Your task to perform on an android device: Search for the best rated running shoes on Nike.com Image 0: 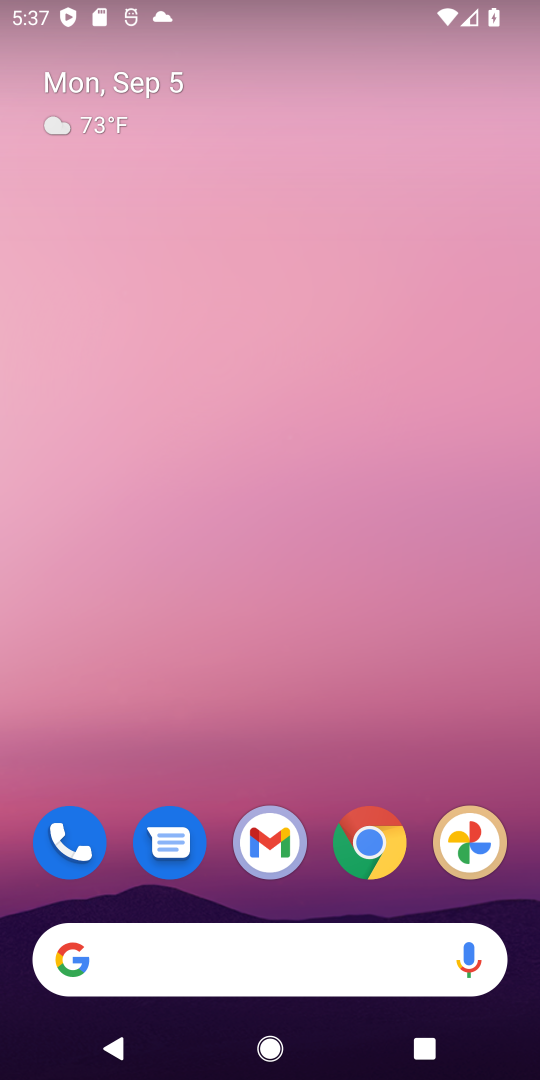
Step 0: click (375, 846)
Your task to perform on an android device: Search for the best rated running shoes on Nike.com Image 1: 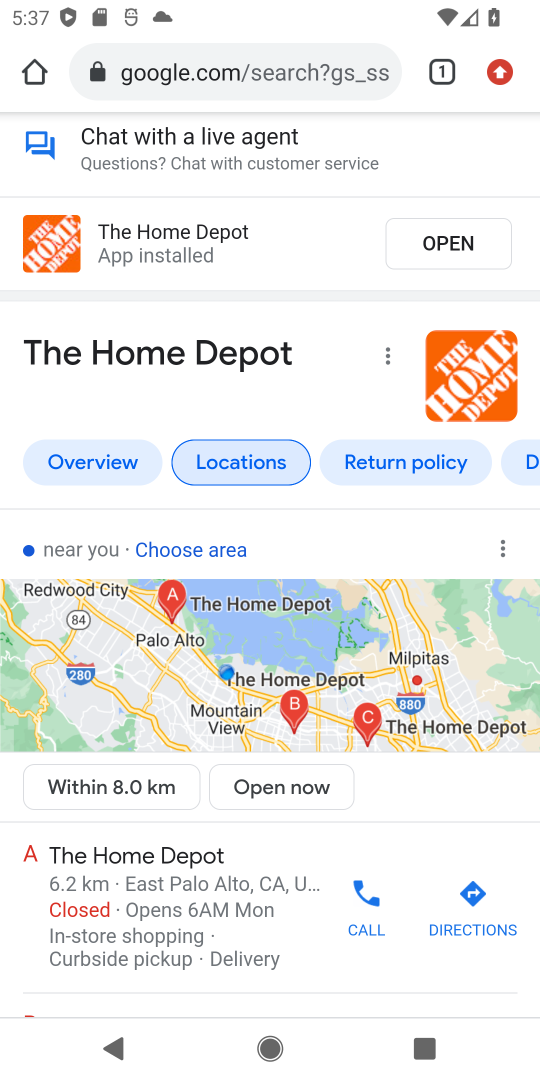
Step 1: click (322, 70)
Your task to perform on an android device: Search for the best rated running shoes on Nike.com Image 2: 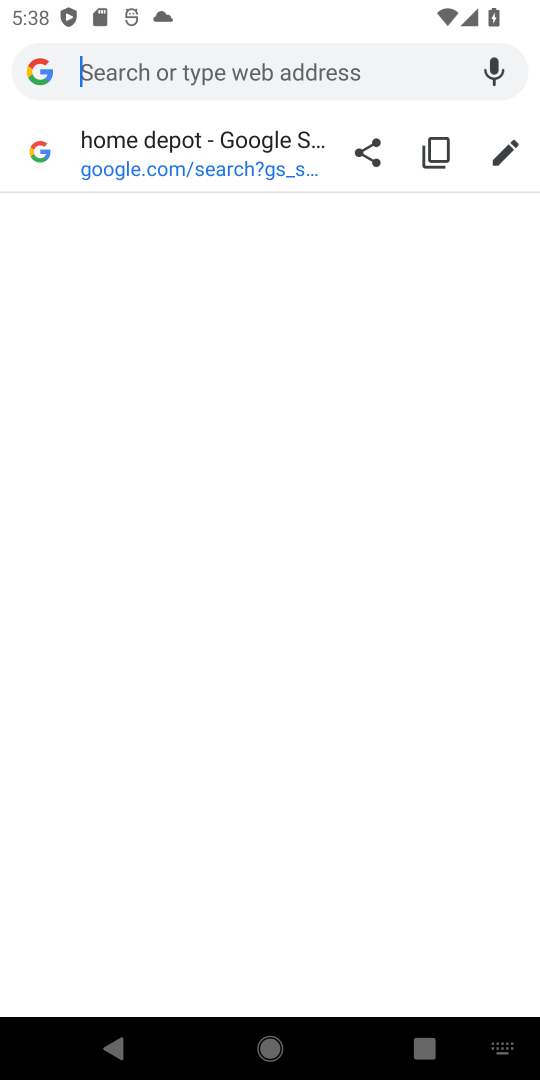
Step 2: type "Nike.com"
Your task to perform on an android device: Search for the best rated running shoes on Nike.com Image 3: 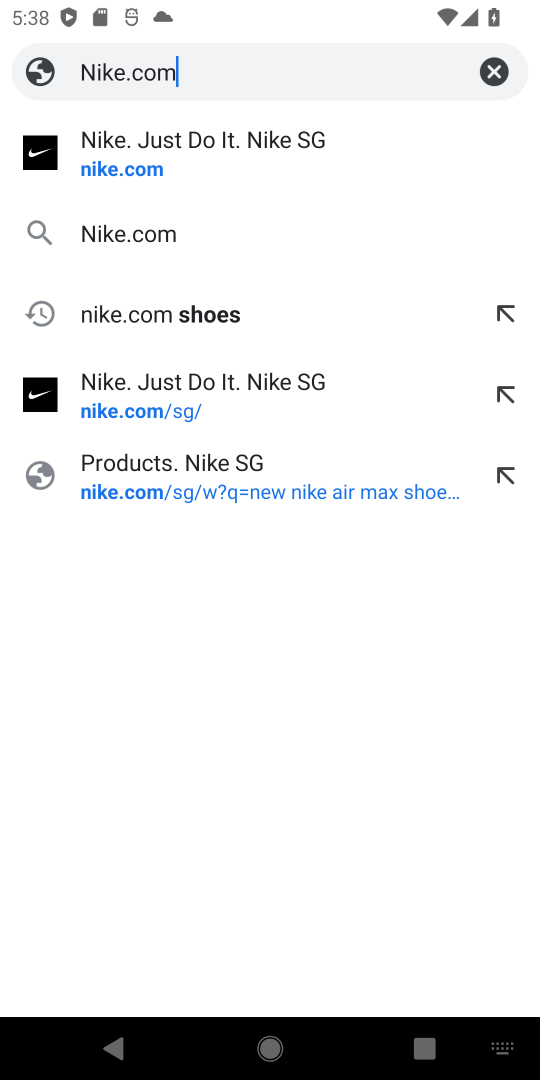
Step 3: click (151, 241)
Your task to perform on an android device: Search for the best rated running shoes on Nike.com Image 4: 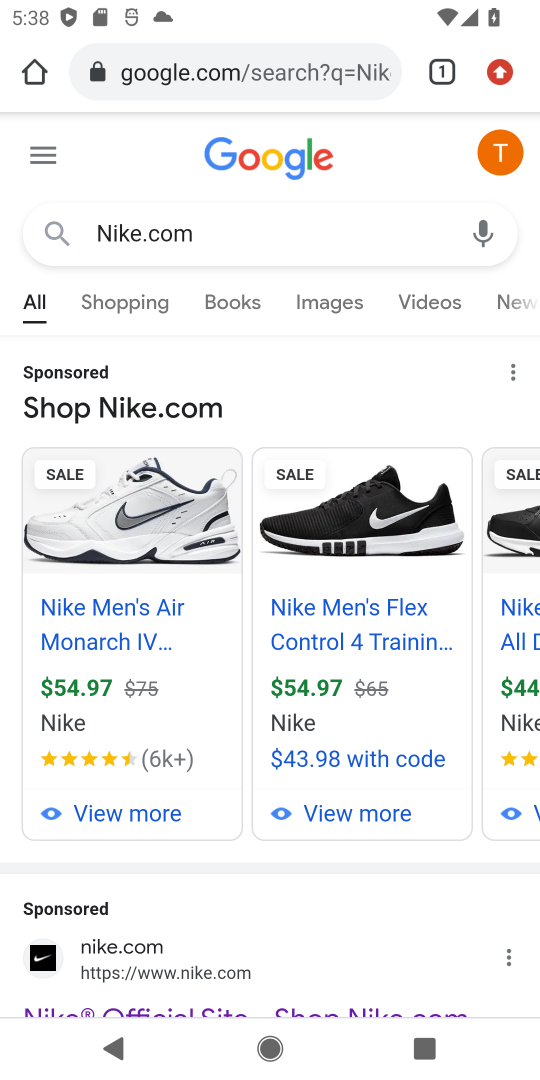
Step 4: drag from (279, 930) to (378, 352)
Your task to perform on an android device: Search for the best rated running shoes on Nike.com Image 5: 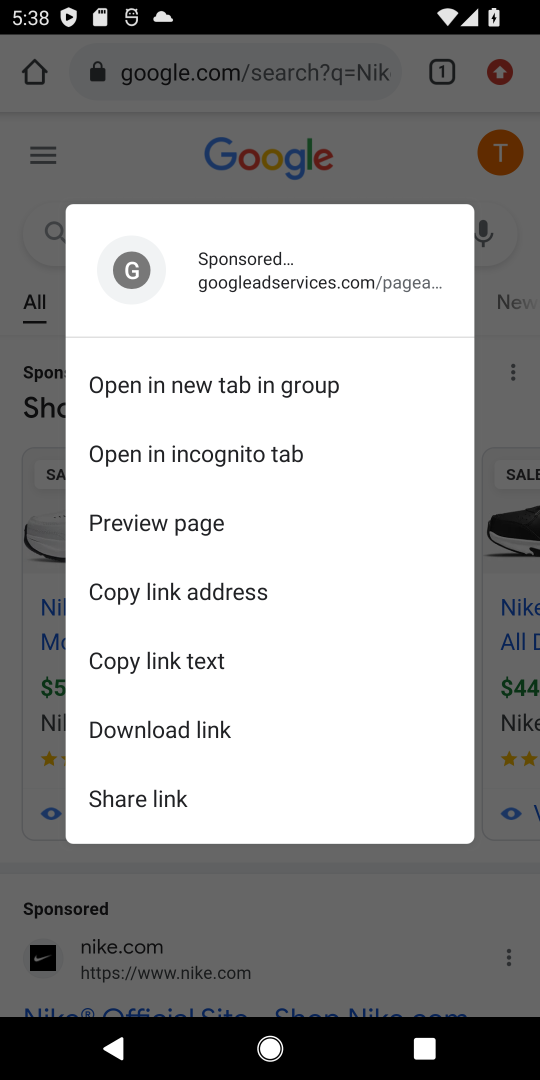
Step 5: click (379, 156)
Your task to perform on an android device: Search for the best rated running shoes on Nike.com Image 6: 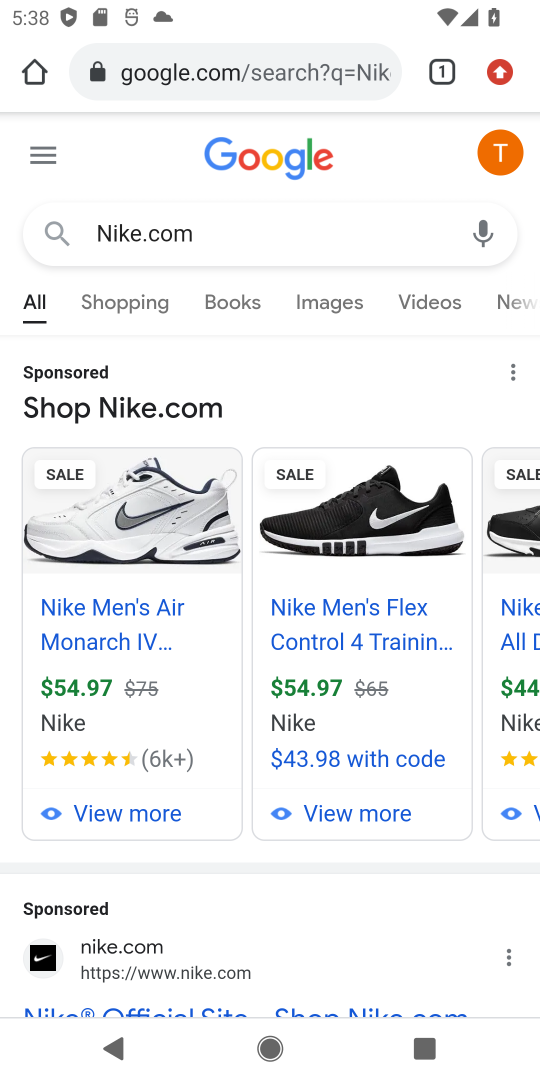
Step 6: drag from (283, 932) to (386, 263)
Your task to perform on an android device: Search for the best rated running shoes on Nike.com Image 7: 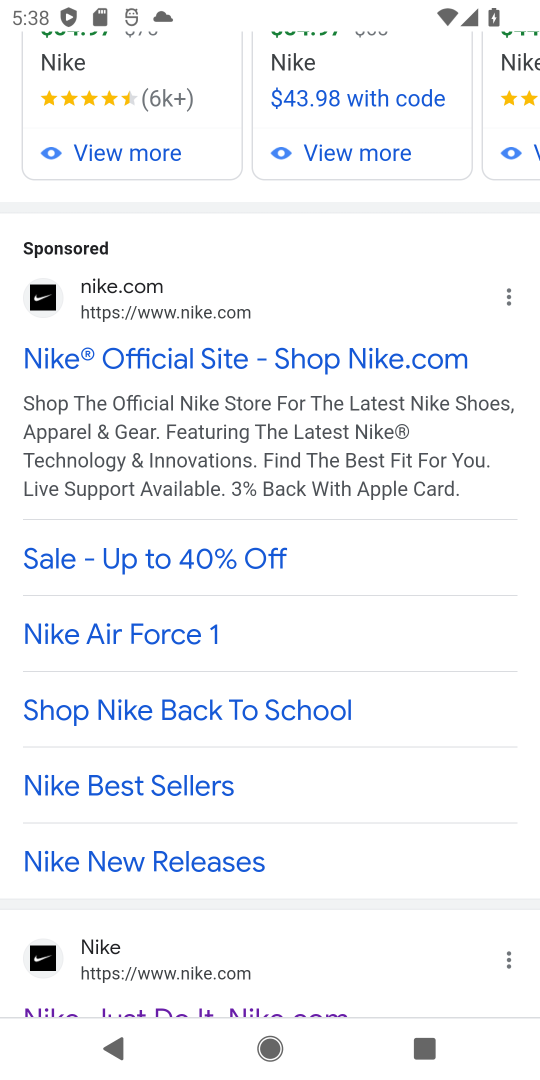
Step 7: drag from (330, 968) to (417, 636)
Your task to perform on an android device: Search for the best rated running shoes on Nike.com Image 8: 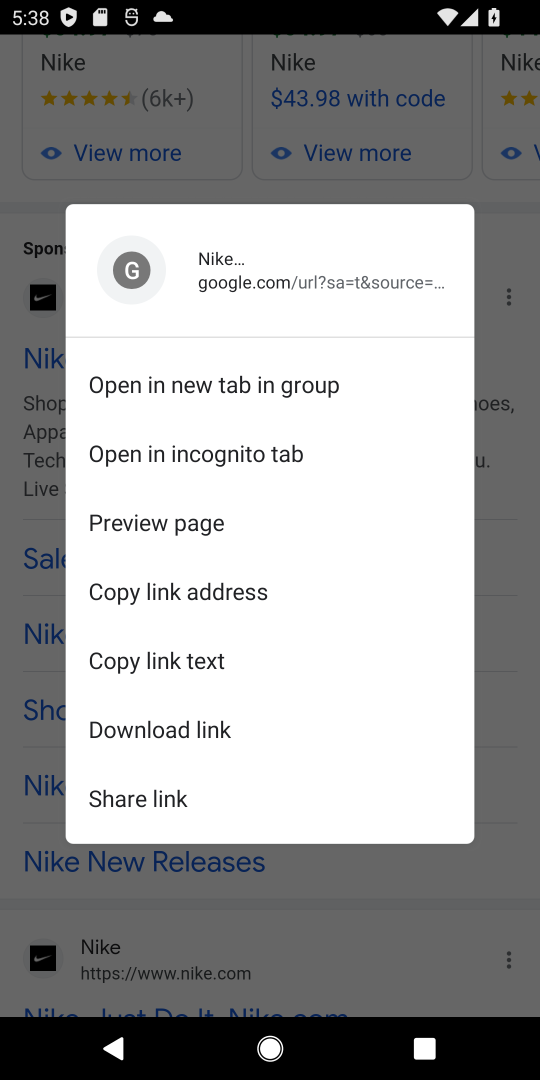
Step 8: click (537, 508)
Your task to perform on an android device: Search for the best rated running shoes on Nike.com Image 9: 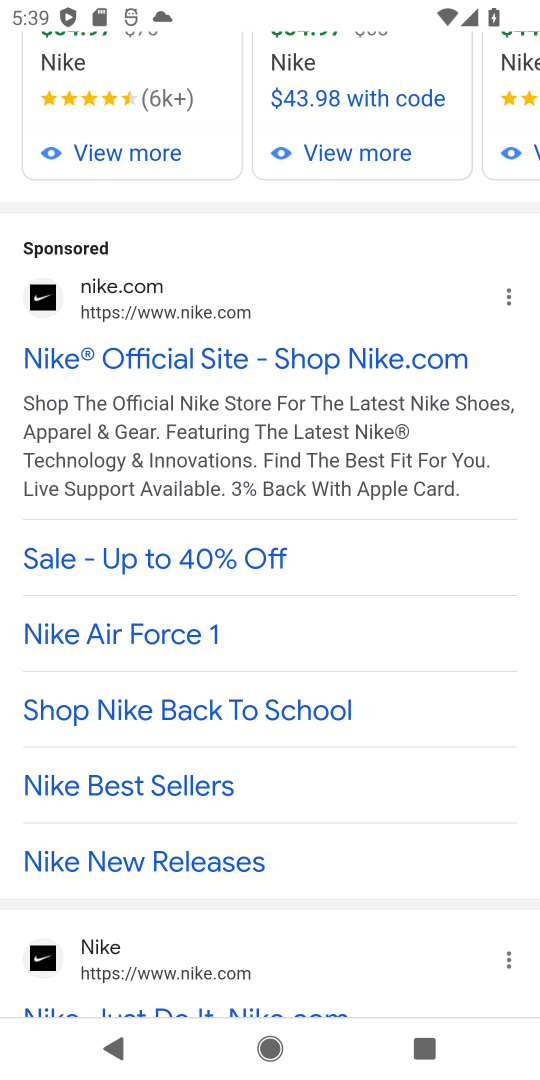
Step 9: drag from (331, 795) to (388, 638)
Your task to perform on an android device: Search for the best rated running shoes on Nike.com Image 10: 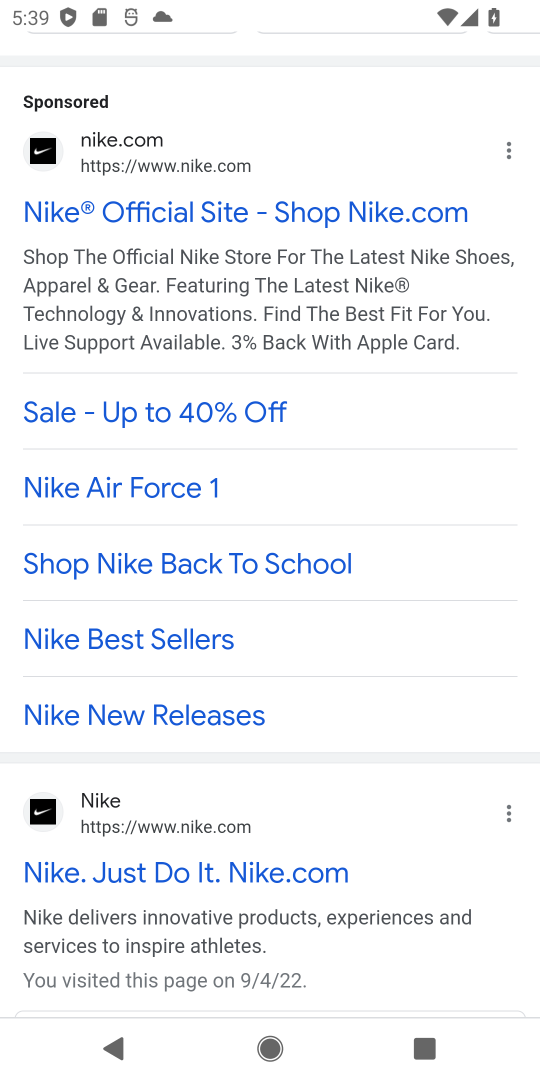
Step 10: click (282, 878)
Your task to perform on an android device: Search for the best rated running shoes on Nike.com Image 11: 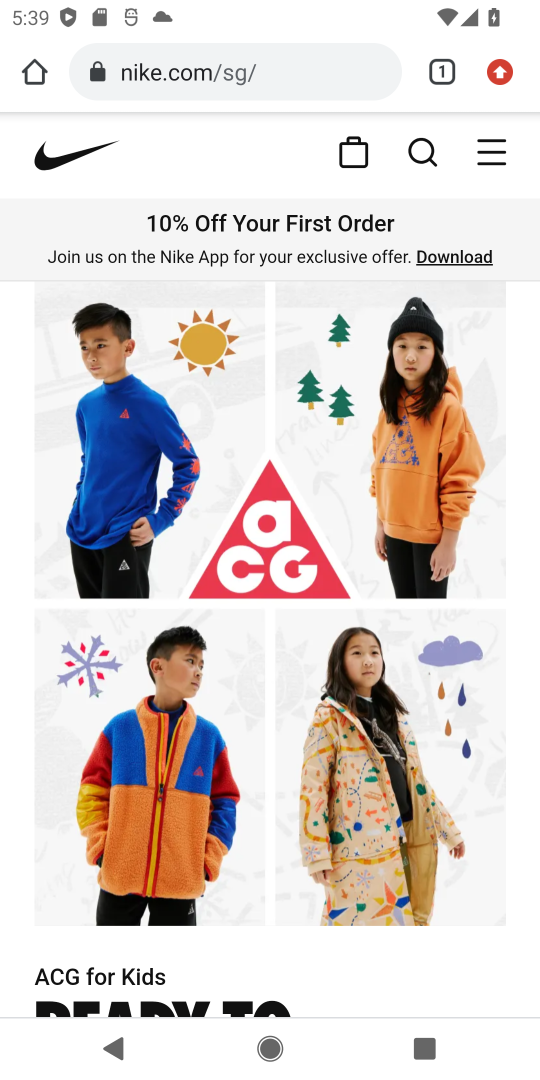
Step 11: click (418, 155)
Your task to perform on an android device: Search for the best rated running shoes on Nike.com Image 12: 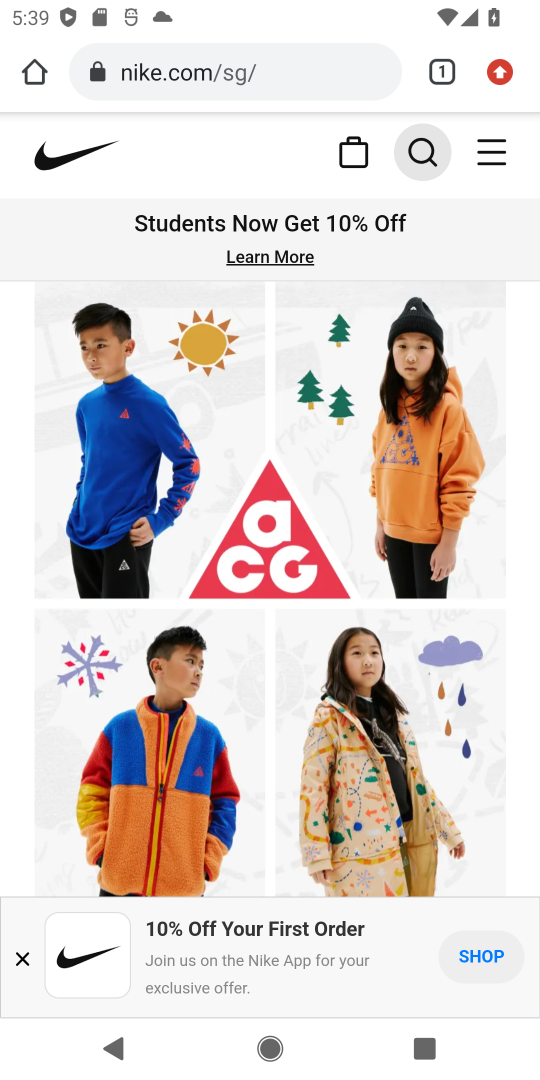
Step 12: click (418, 159)
Your task to perform on an android device: Search for the best rated running shoes on Nike.com Image 13: 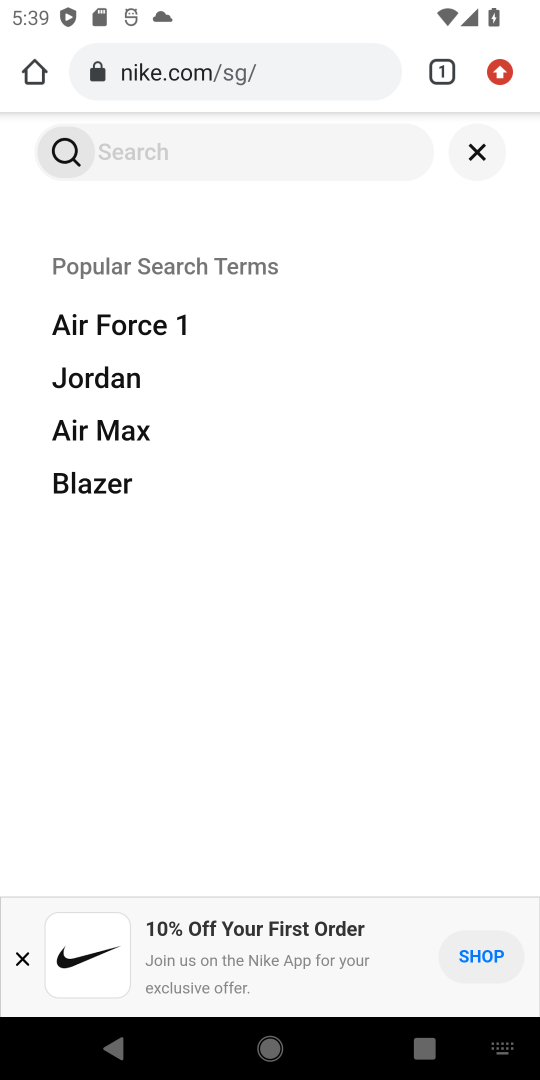
Step 13: click (165, 135)
Your task to perform on an android device: Search for the best rated running shoes on Nike.com Image 14: 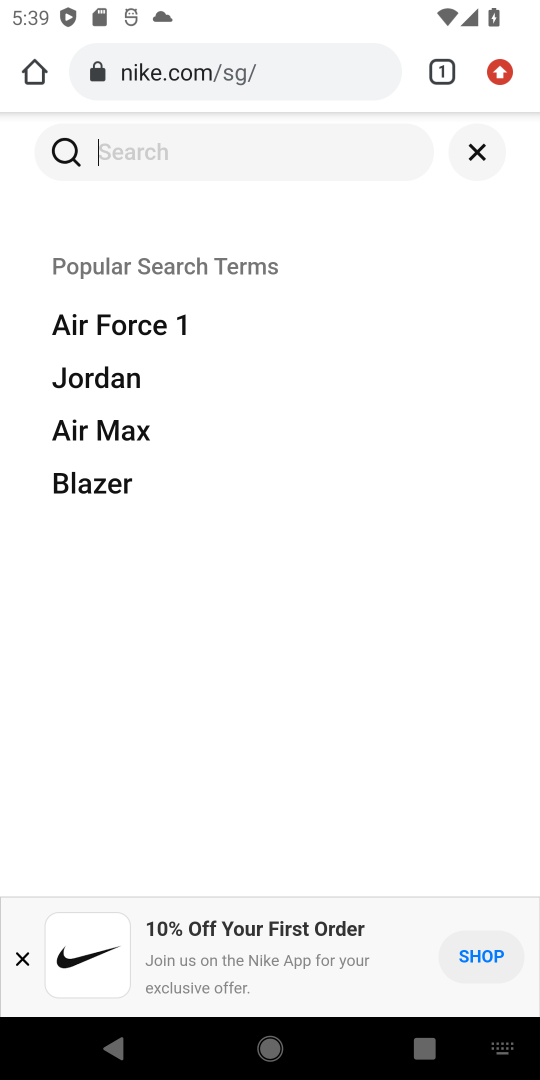
Step 14: type "best rated running shoes"
Your task to perform on an android device: Search for the best rated running shoes on Nike.com Image 15: 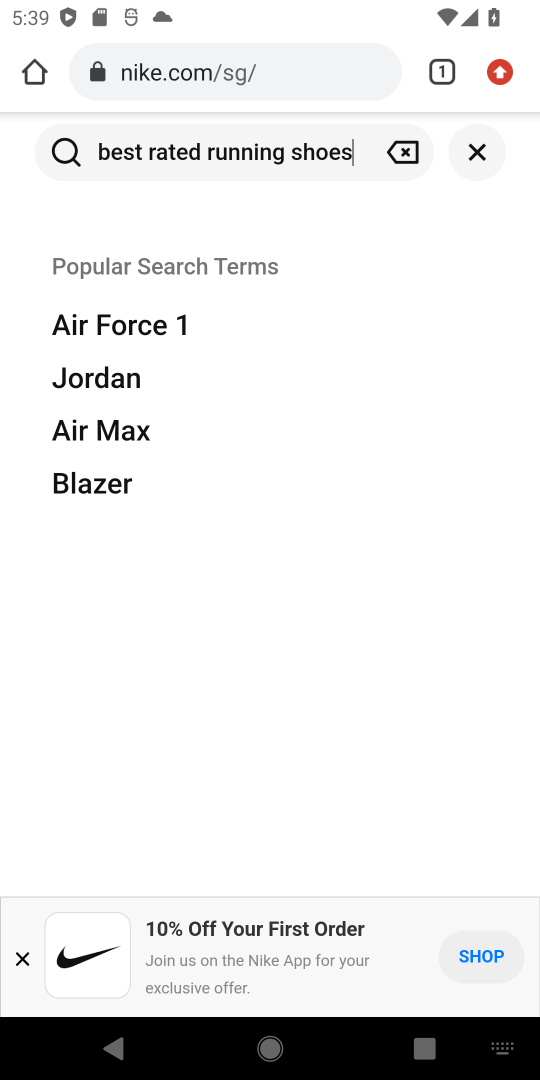
Step 15: click (66, 158)
Your task to perform on an android device: Search for the best rated running shoes on Nike.com Image 16: 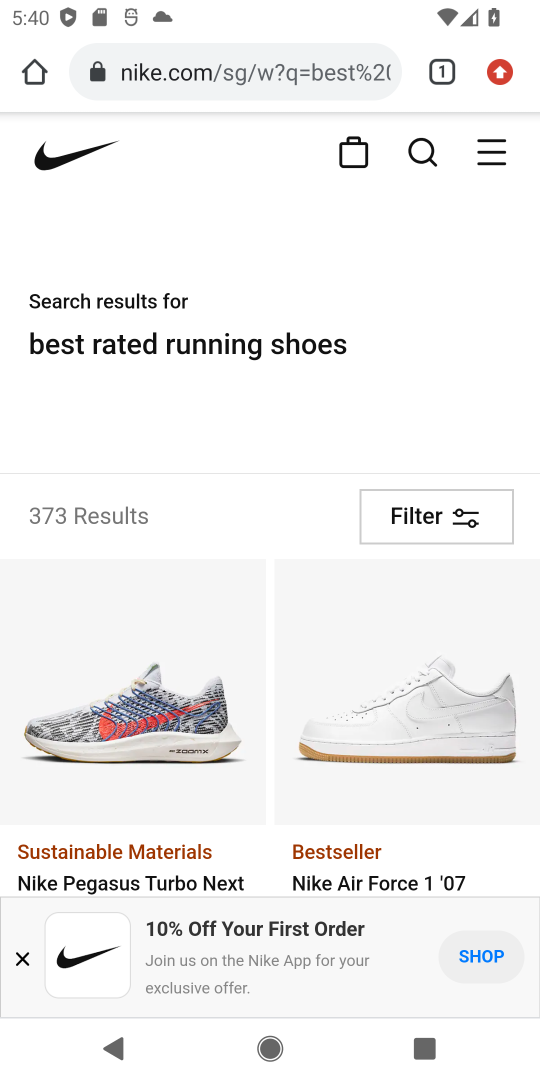
Step 16: task complete